Your task to perform on an android device: all mails in gmail Image 0: 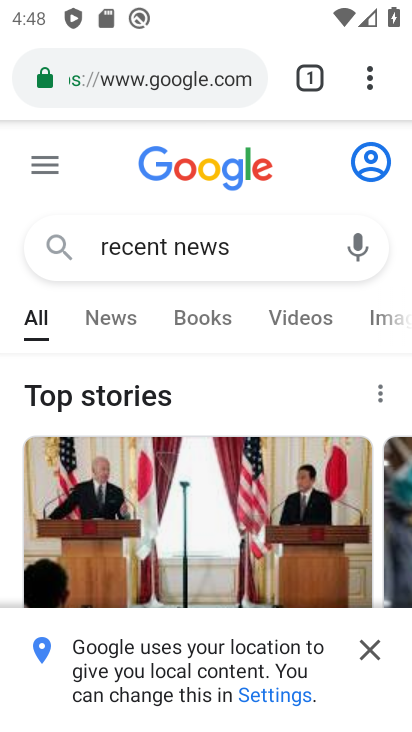
Step 0: press home button
Your task to perform on an android device: all mails in gmail Image 1: 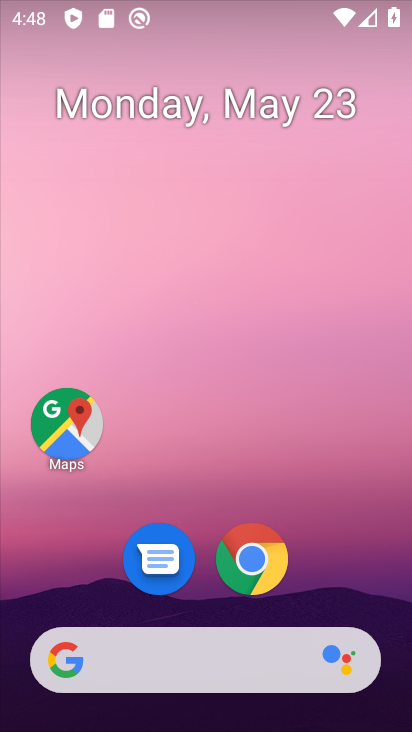
Step 1: drag from (284, 557) to (291, 2)
Your task to perform on an android device: all mails in gmail Image 2: 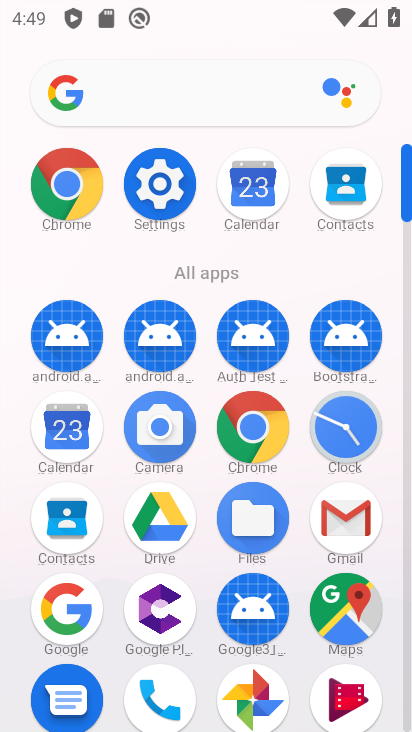
Step 2: click (363, 532)
Your task to perform on an android device: all mails in gmail Image 3: 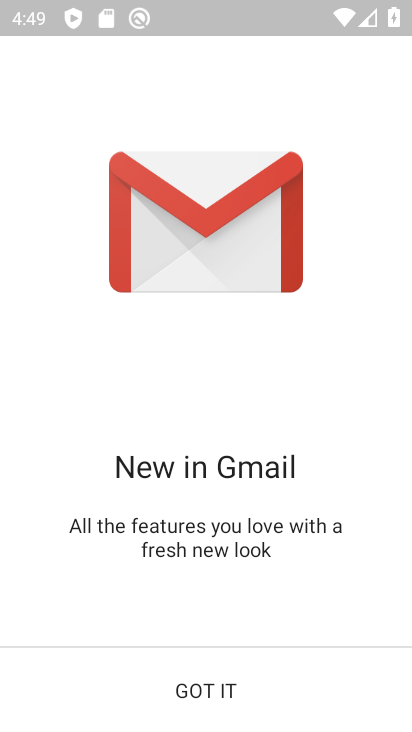
Step 3: click (239, 692)
Your task to perform on an android device: all mails in gmail Image 4: 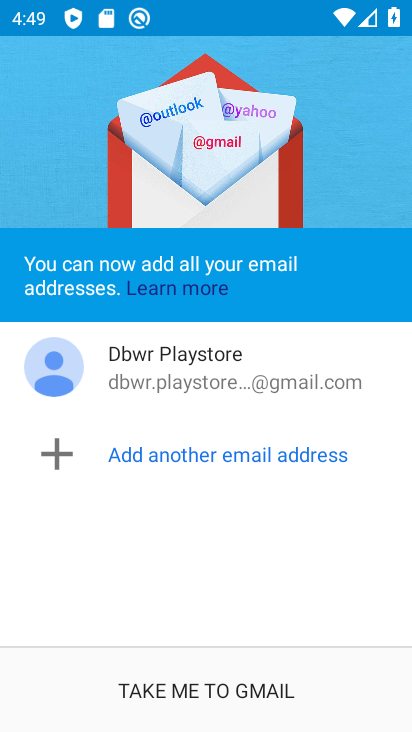
Step 4: click (239, 692)
Your task to perform on an android device: all mails in gmail Image 5: 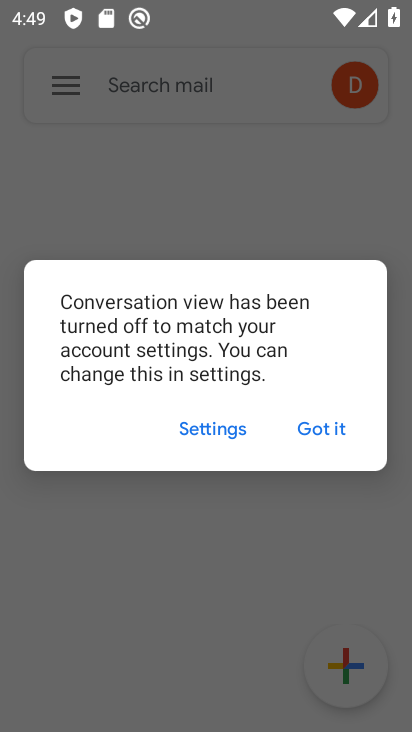
Step 5: click (311, 427)
Your task to perform on an android device: all mails in gmail Image 6: 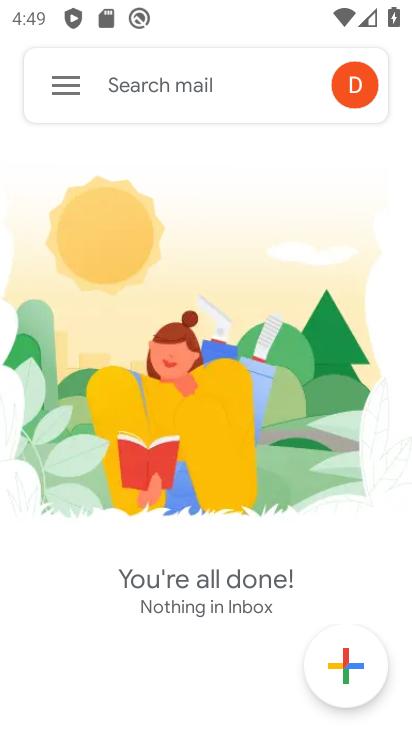
Step 6: click (73, 99)
Your task to perform on an android device: all mails in gmail Image 7: 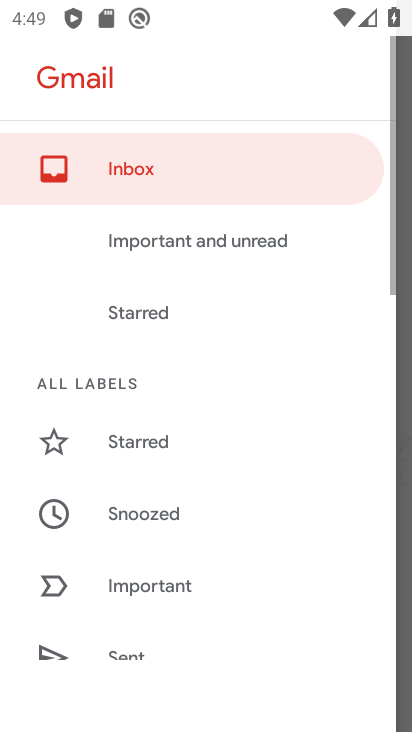
Step 7: drag from (207, 642) to (241, 141)
Your task to perform on an android device: all mails in gmail Image 8: 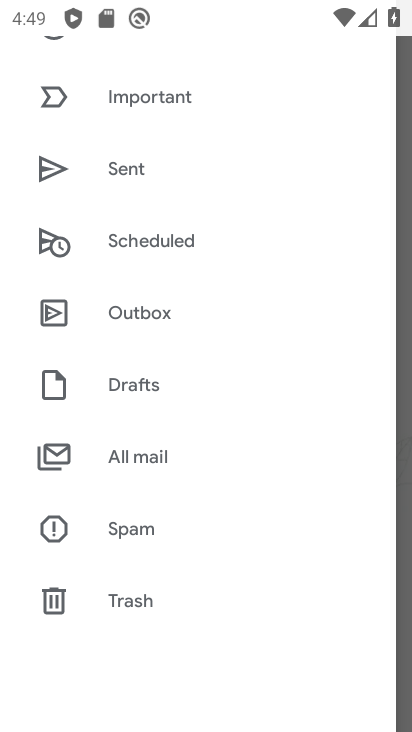
Step 8: click (154, 458)
Your task to perform on an android device: all mails in gmail Image 9: 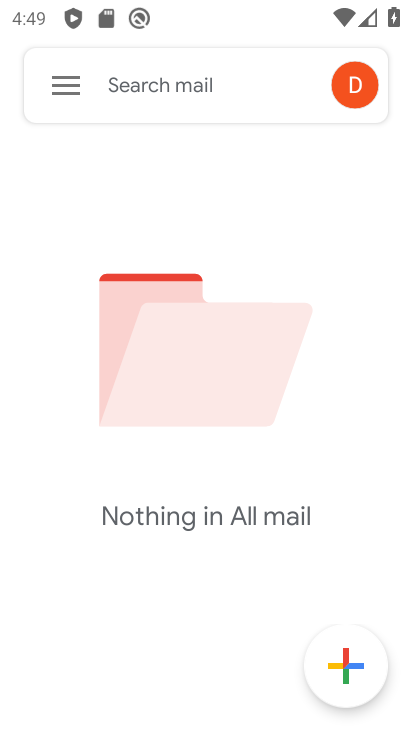
Step 9: task complete